Your task to perform on an android device: open the mobile data screen to see how much data has been used Image 0: 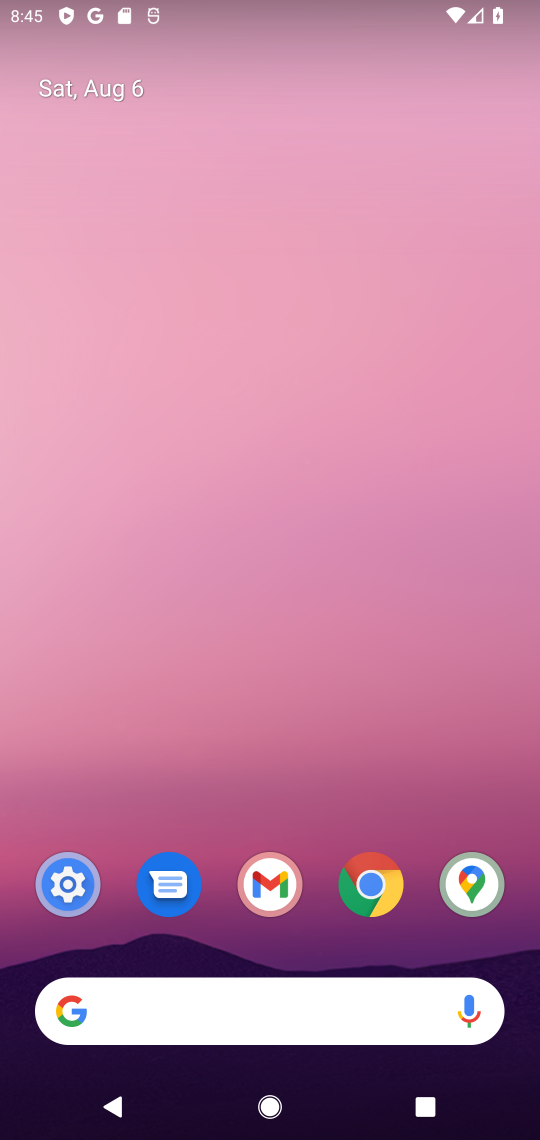
Step 0: click (70, 884)
Your task to perform on an android device: open the mobile data screen to see how much data has been used Image 1: 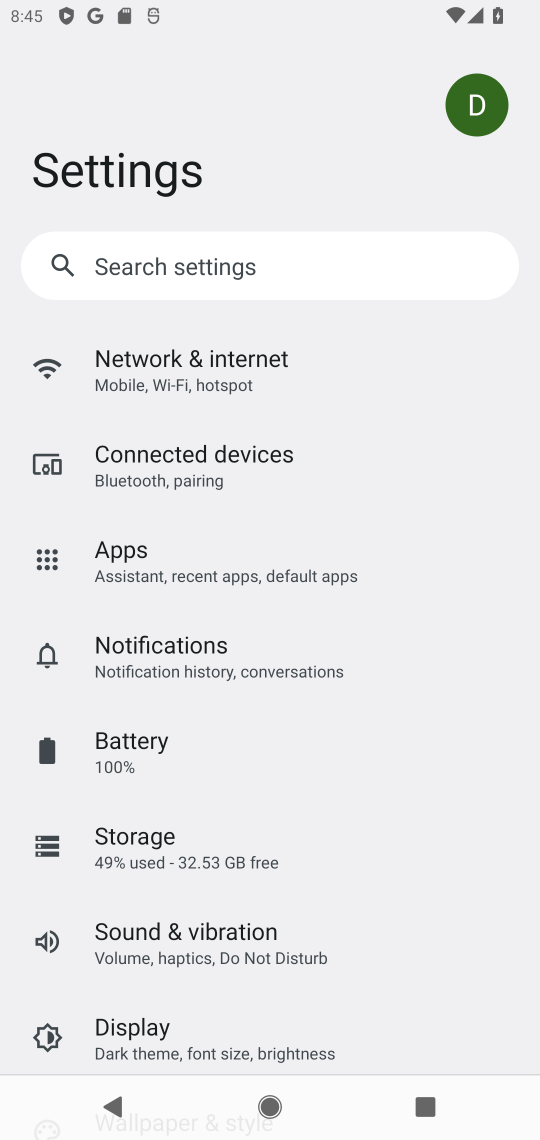
Step 1: click (136, 367)
Your task to perform on an android device: open the mobile data screen to see how much data has been used Image 2: 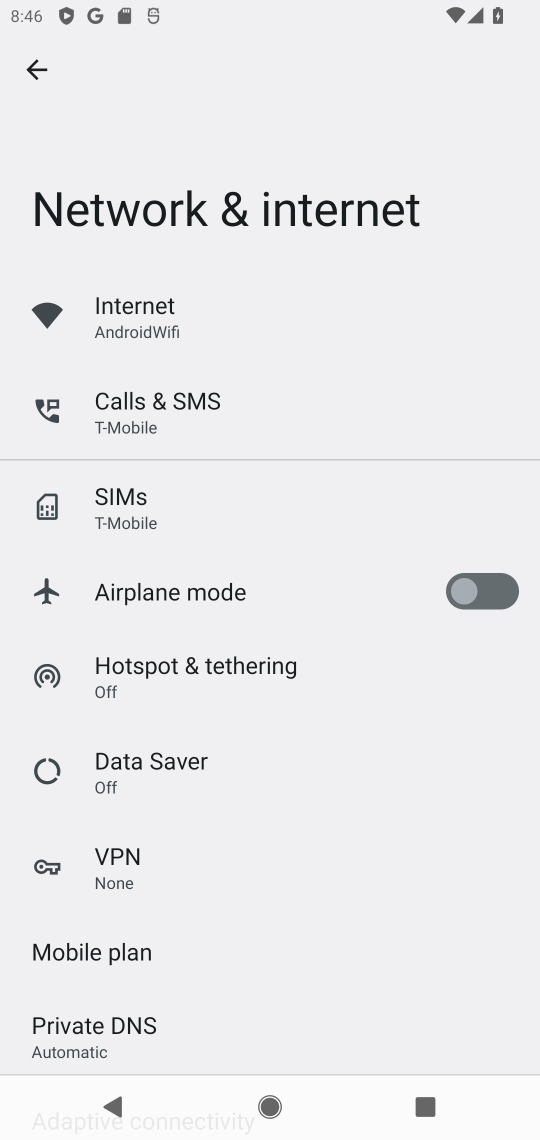
Step 2: click (128, 318)
Your task to perform on an android device: open the mobile data screen to see how much data has been used Image 3: 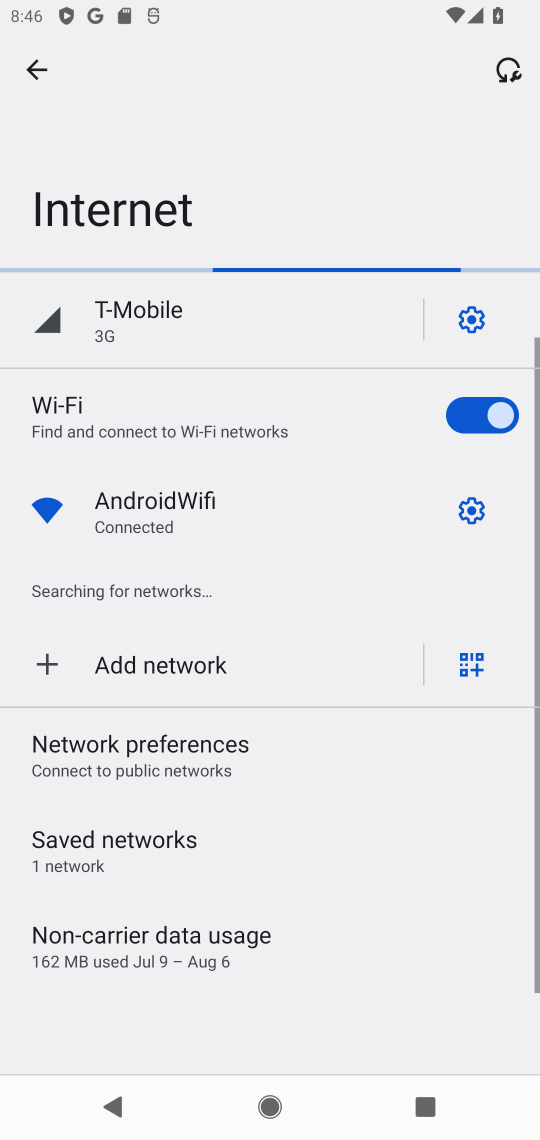
Step 3: click (472, 318)
Your task to perform on an android device: open the mobile data screen to see how much data has been used Image 4: 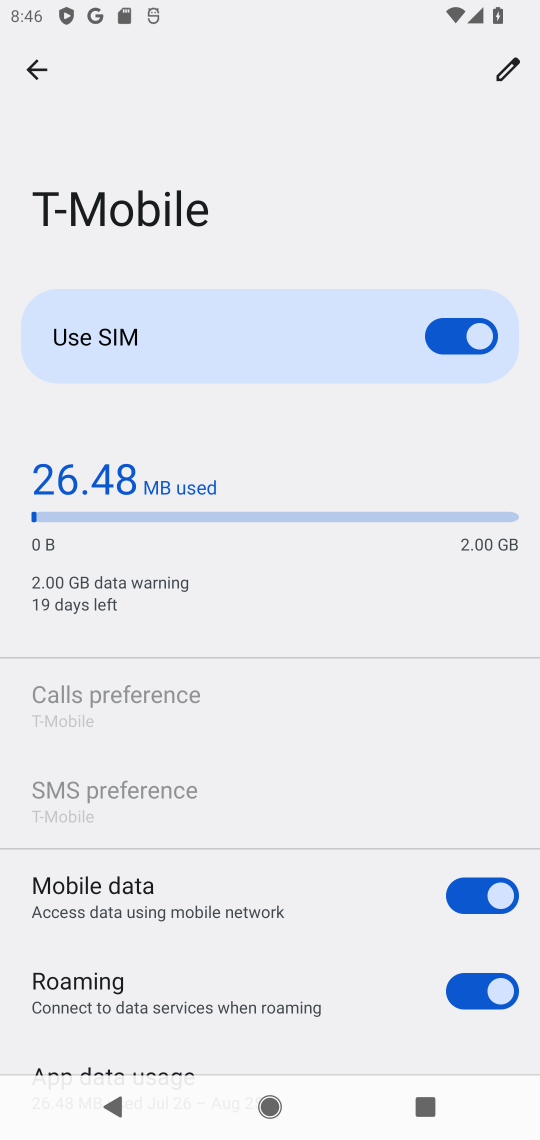
Step 4: task complete